Your task to perform on an android device: Open the map Image 0: 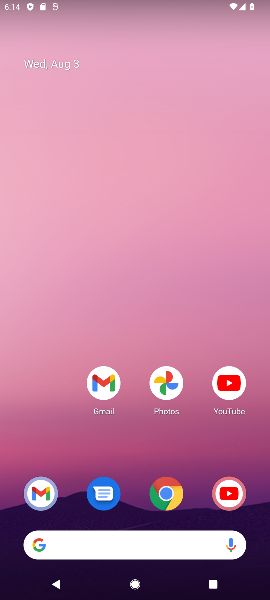
Step 0: drag from (136, 517) to (115, 3)
Your task to perform on an android device: Open the map Image 1: 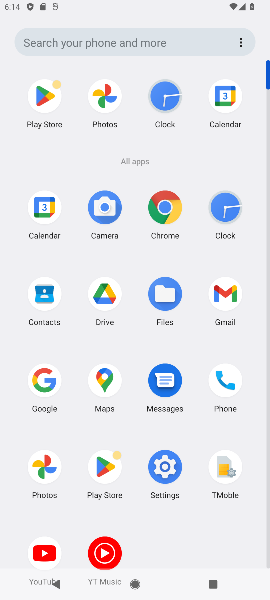
Step 1: drag from (136, 160) to (112, 236)
Your task to perform on an android device: Open the map Image 2: 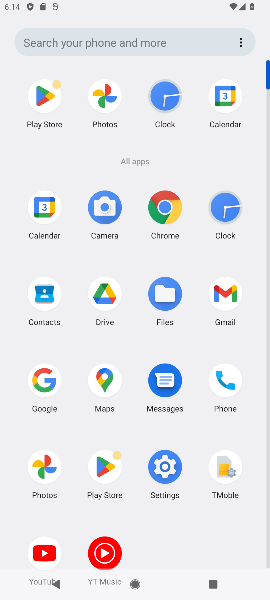
Step 2: drag from (154, 516) to (147, 262)
Your task to perform on an android device: Open the map Image 3: 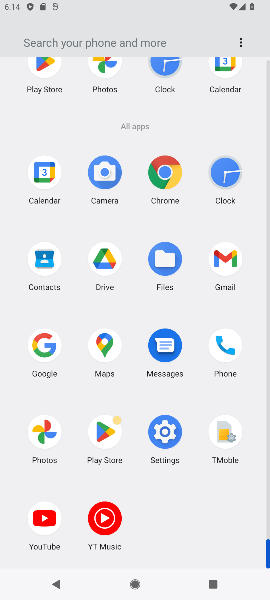
Step 3: drag from (163, 113) to (161, 268)
Your task to perform on an android device: Open the map Image 4: 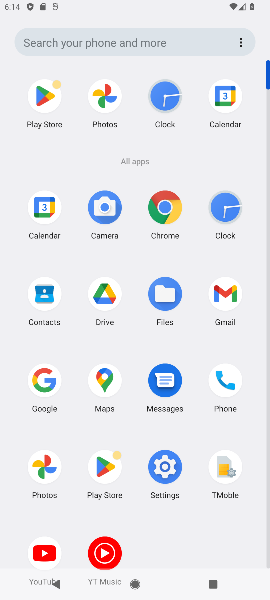
Step 4: click (103, 382)
Your task to perform on an android device: Open the map Image 5: 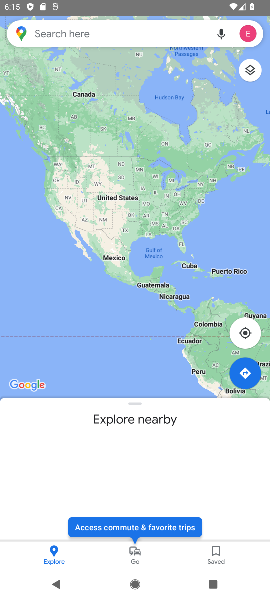
Step 5: task complete